Your task to perform on an android device: toggle improve location accuracy Image 0: 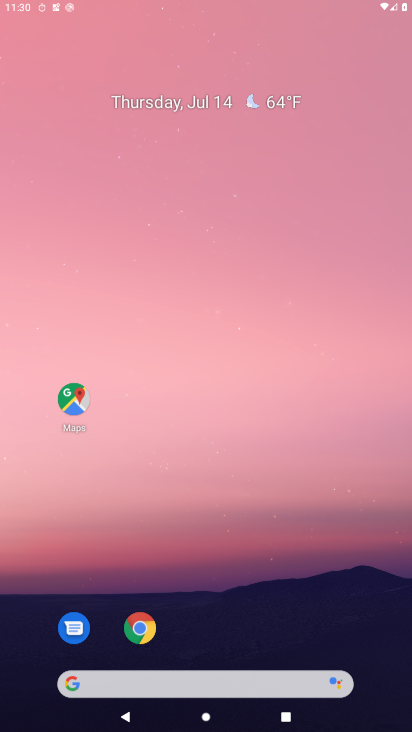
Step 0: click (219, 369)
Your task to perform on an android device: toggle improve location accuracy Image 1: 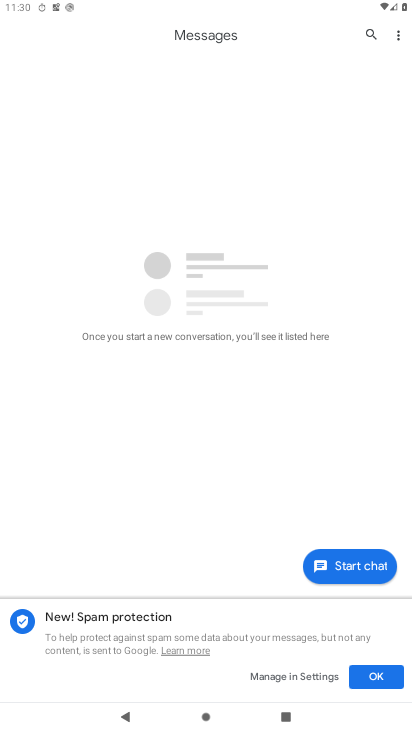
Step 1: press home button
Your task to perform on an android device: toggle improve location accuracy Image 2: 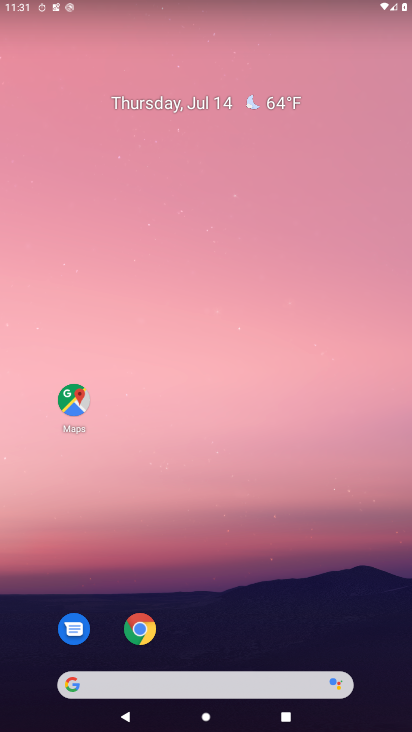
Step 2: drag from (183, 677) to (227, 333)
Your task to perform on an android device: toggle improve location accuracy Image 3: 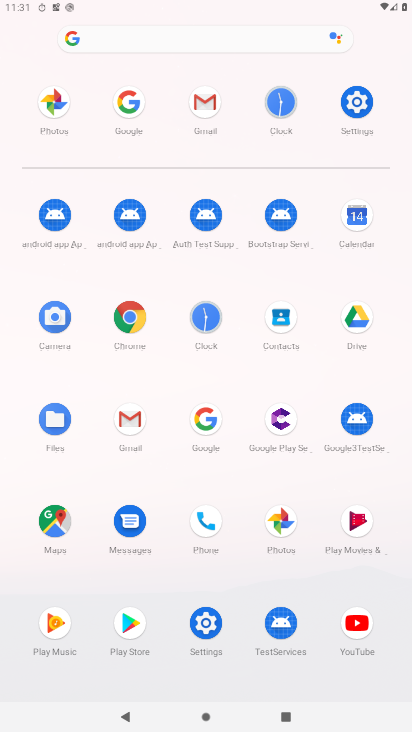
Step 3: click (353, 81)
Your task to perform on an android device: toggle improve location accuracy Image 4: 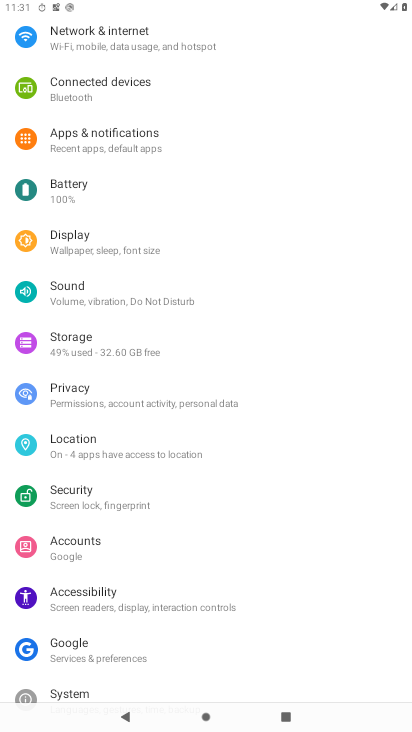
Step 4: click (87, 452)
Your task to perform on an android device: toggle improve location accuracy Image 5: 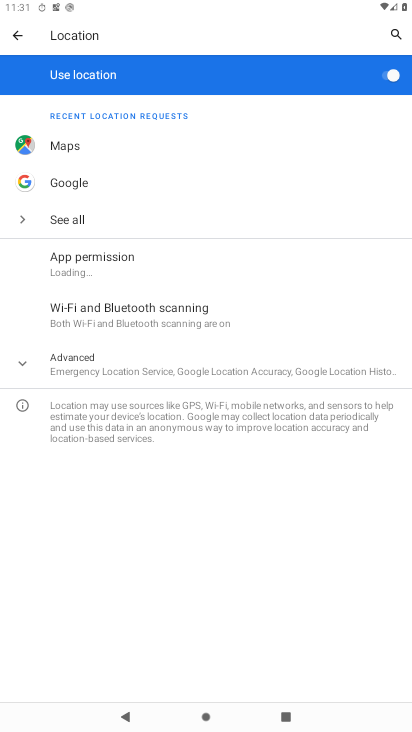
Step 5: click (73, 350)
Your task to perform on an android device: toggle improve location accuracy Image 6: 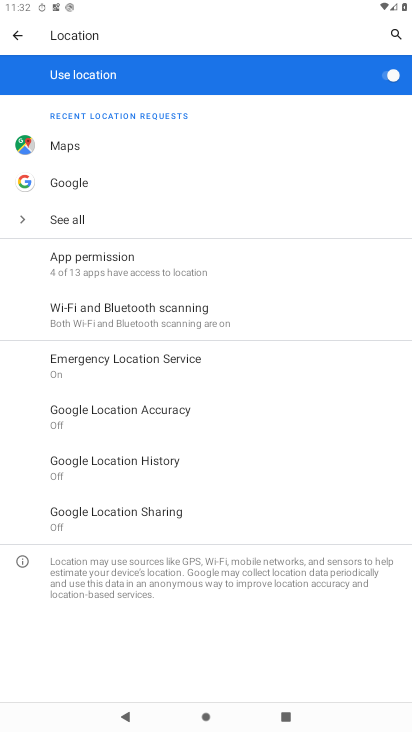
Step 6: click (128, 410)
Your task to perform on an android device: toggle improve location accuracy Image 7: 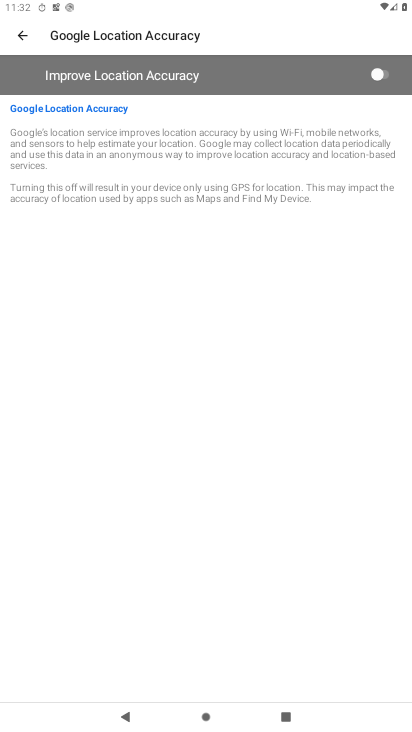
Step 7: click (377, 72)
Your task to perform on an android device: toggle improve location accuracy Image 8: 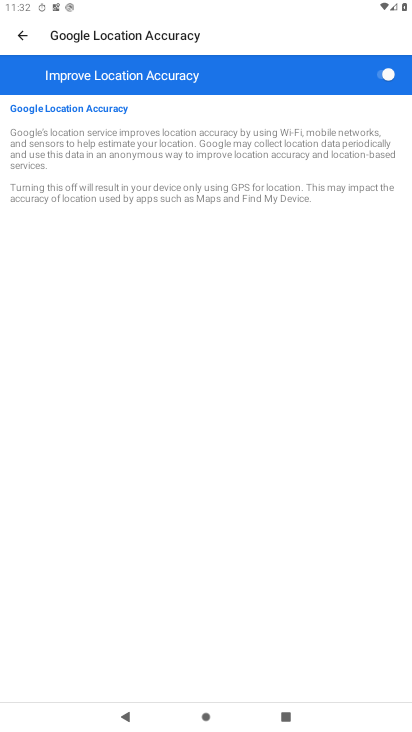
Step 8: task complete